Your task to perform on an android device: Go to Wikipedia Image 0: 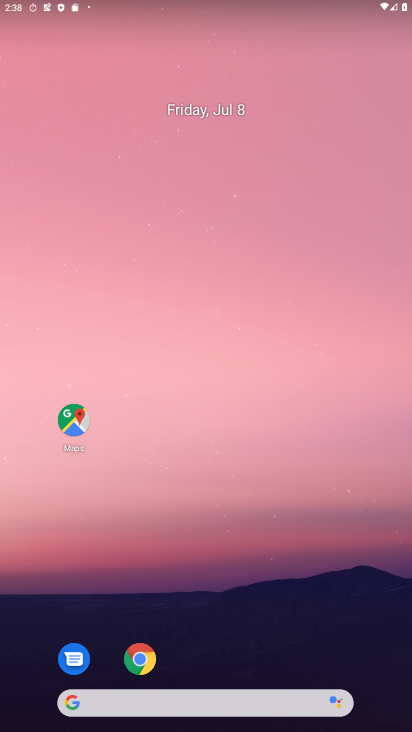
Step 0: click (136, 655)
Your task to perform on an android device: Go to Wikipedia Image 1: 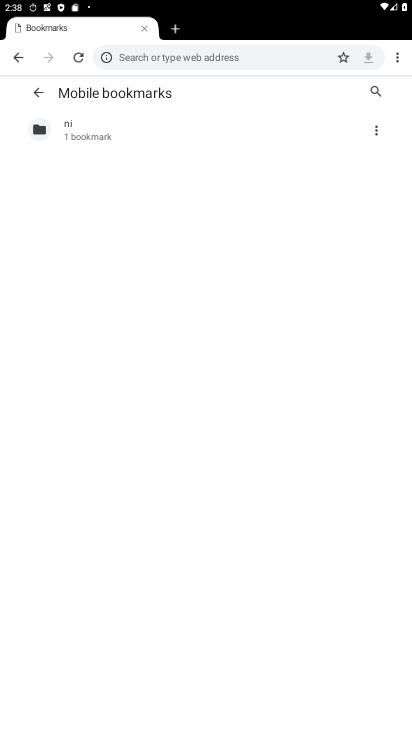
Step 1: click (34, 95)
Your task to perform on an android device: Go to Wikipedia Image 2: 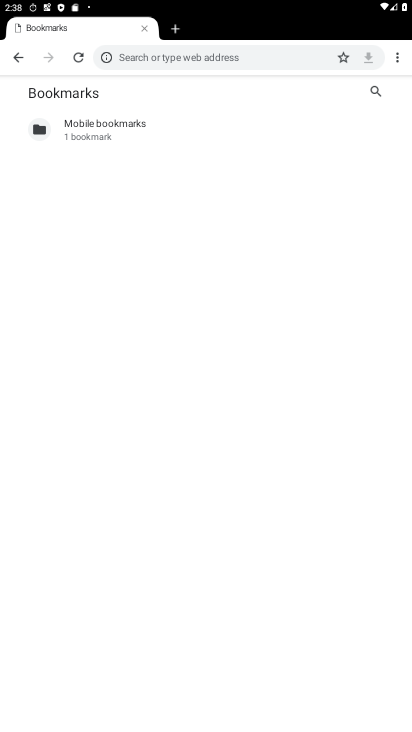
Step 2: click (173, 26)
Your task to perform on an android device: Go to Wikipedia Image 3: 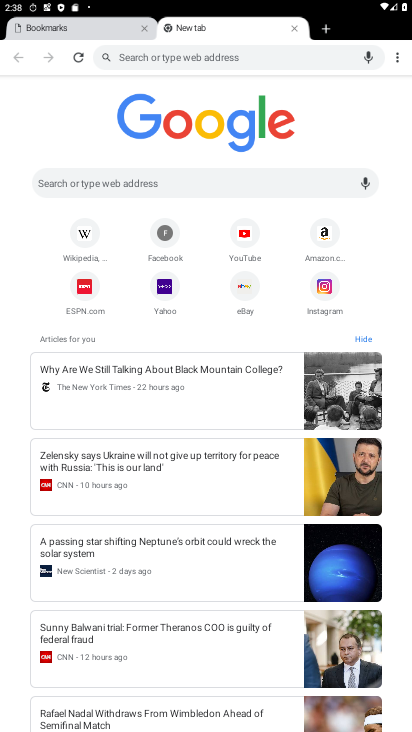
Step 3: click (80, 231)
Your task to perform on an android device: Go to Wikipedia Image 4: 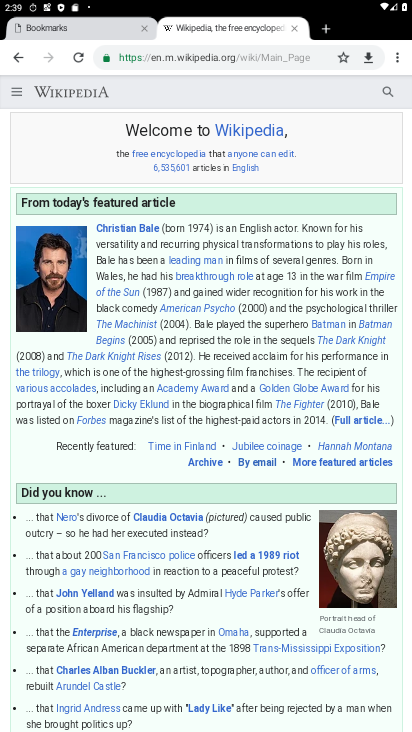
Step 4: task complete